Your task to perform on an android device: open sync settings in chrome Image 0: 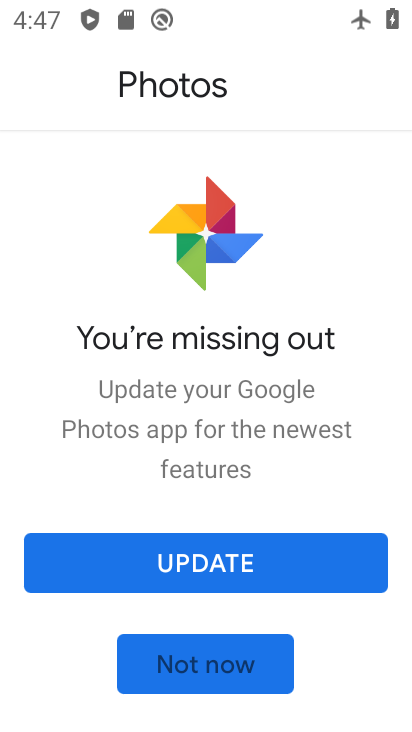
Step 0: press home button
Your task to perform on an android device: open sync settings in chrome Image 1: 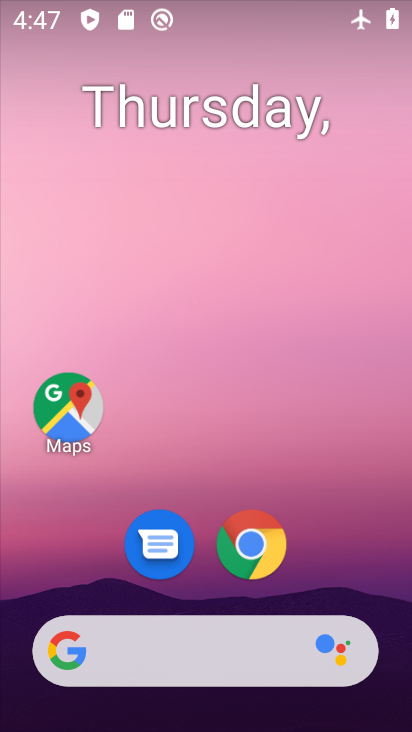
Step 1: drag from (344, 496) to (363, 186)
Your task to perform on an android device: open sync settings in chrome Image 2: 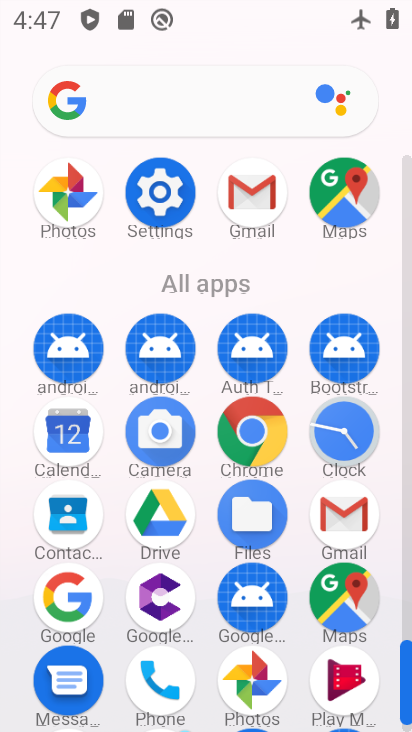
Step 2: click (259, 437)
Your task to perform on an android device: open sync settings in chrome Image 3: 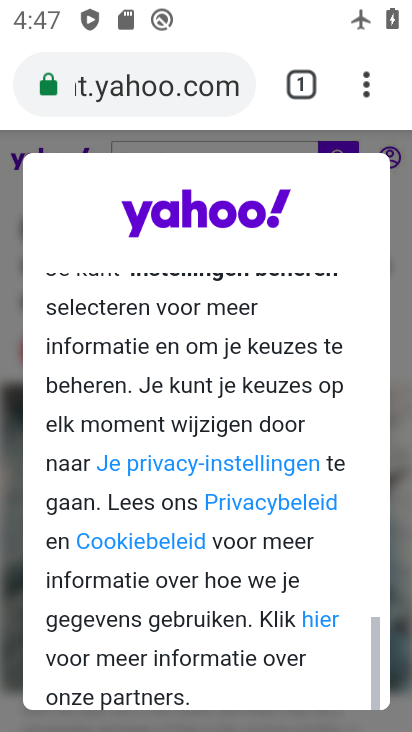
Step 3: click (360, 83)
Your task to perform on an android device: open sync settings in chrome Image 4: 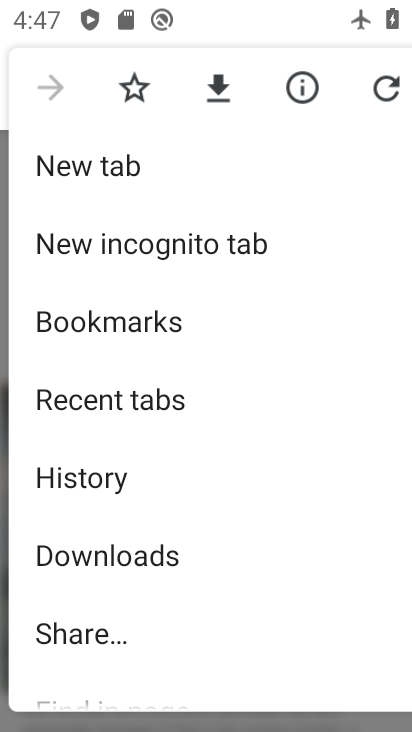
Step 4: drag from (89, 585) to (175, 218)
Your task to perform on an android device: open sync settings in chrome Image 5: 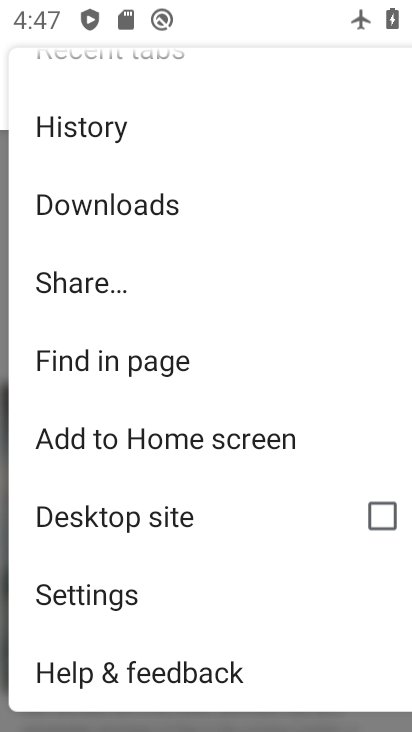
Step 5: click (98, 603)
Your task to perform on an android device: open sync settings in chrome Image 6: 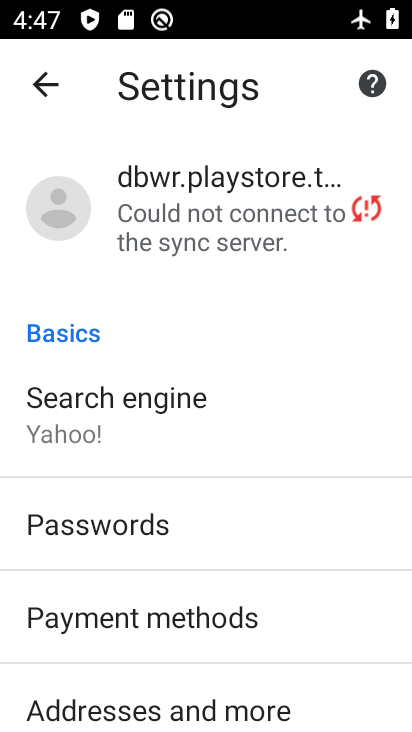
Step 6: drag from (129, 485) to (184, 277)
Your task to perform on an android device: open sync settings in chrome Image 7: 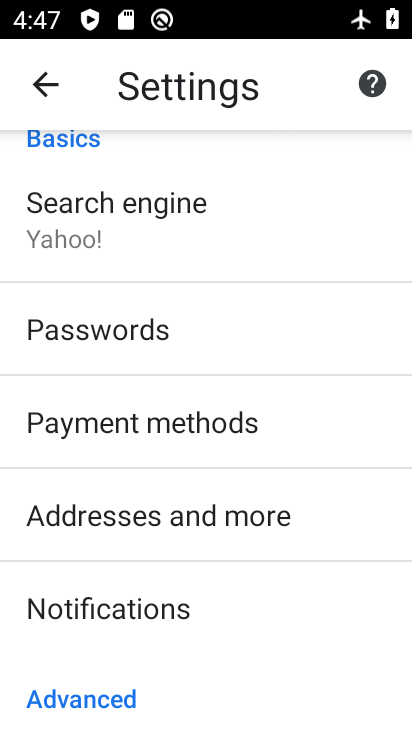
Step 7: drag from (108, 558) to (167, 262)
Your task to perform on an android device: open sync settings in chrome Image 8: 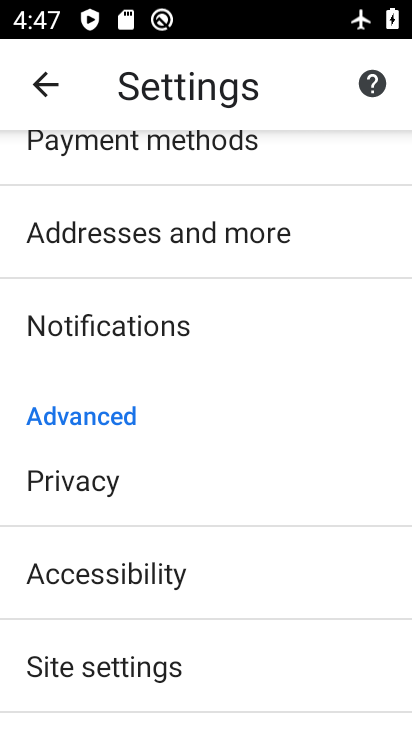
Step 8: click (102, 663)
Your task to perform on an android device: open sync settings in chrome Image 9: 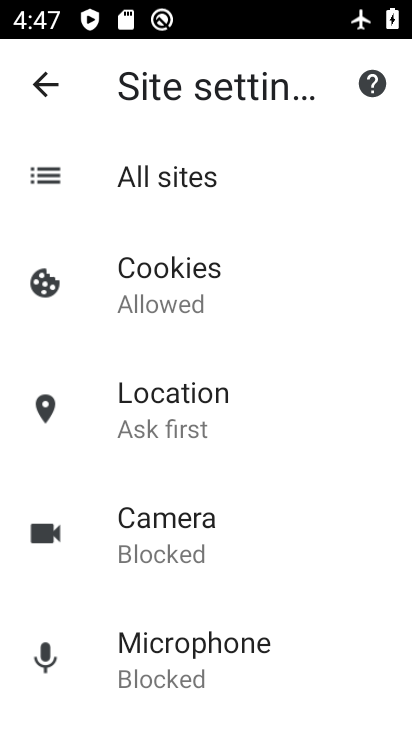
Step 9: drag from (181, 590) to (239, 268)
Your task to perform on an android device: open sync settings in chrome Image 10: 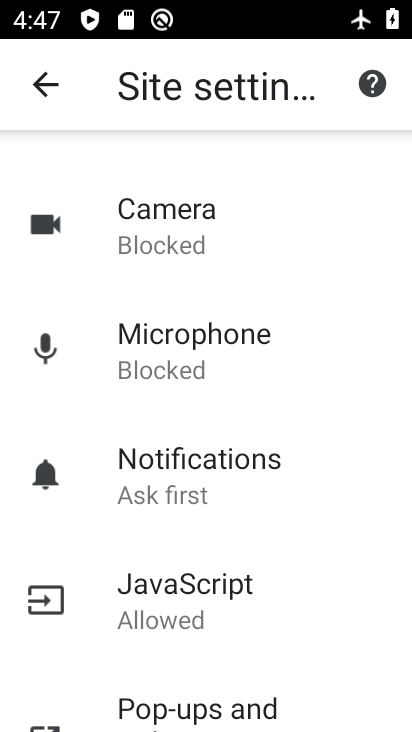
Step 10: drag from (180, 660) to (245, 286)
Your task to perform on an android device: open sync settings in chrome Image 11: 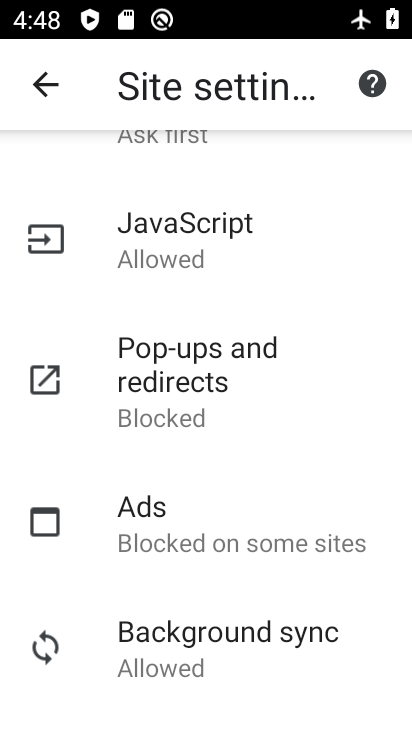
Step 11: click (165, 640)
Your task to perform on an android device: open sync settings in chrome Image 12: 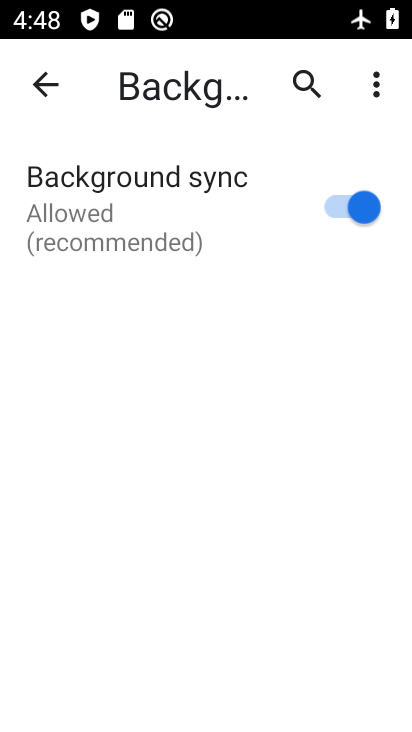
Step 12: task complete